Your task to perform on an android device: Open calendar and show me the second week of next month Image 0: 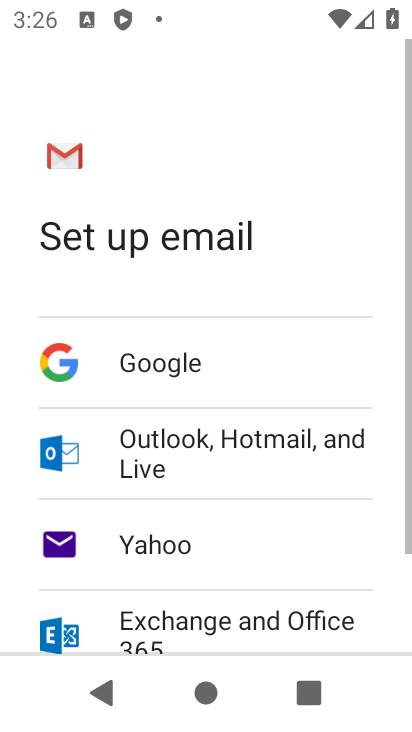
Step 0: task complete